Your task to perform on an android device: change notification settings in the gmail app Image 0: 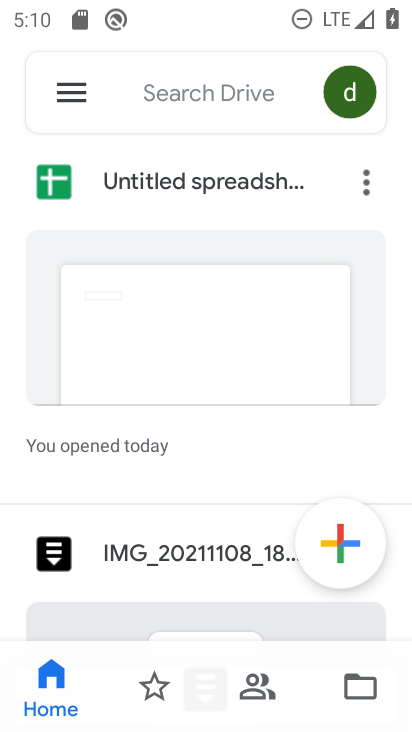
Step 0: press home button
Your task to perform on an android device: change notification settings in the gmail app Image 1: 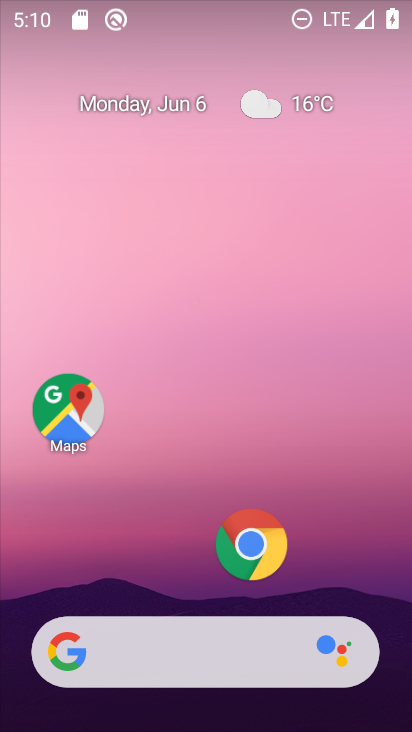
Step 1: drag from (206, 588) to (206, 79)
Your task to perform on an android device: change notification settings in the gmail app Image 2: 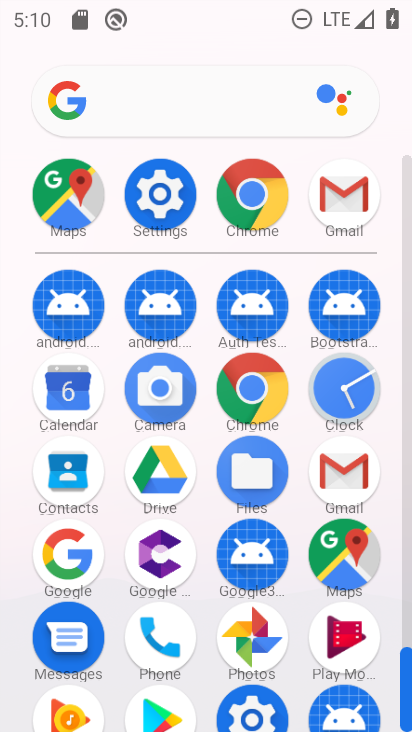
Step 2: click (344, 183)
Your task to perform on an android device: change notification settings in the gmail app Image 3: 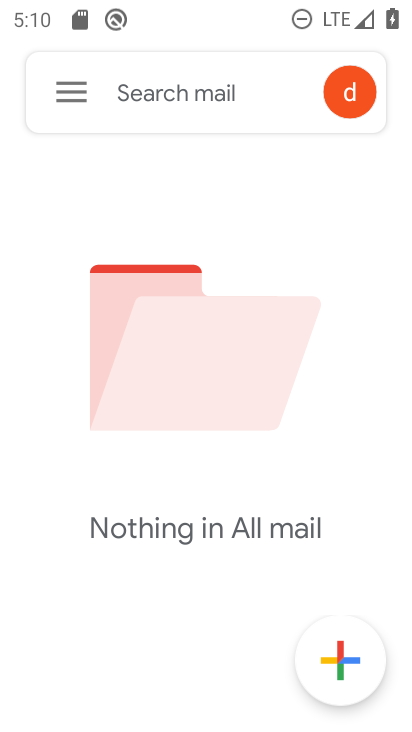
Step 3: click (65, 81)
Your task to perform on an android device: change notification settings in the gmail app Image 4: 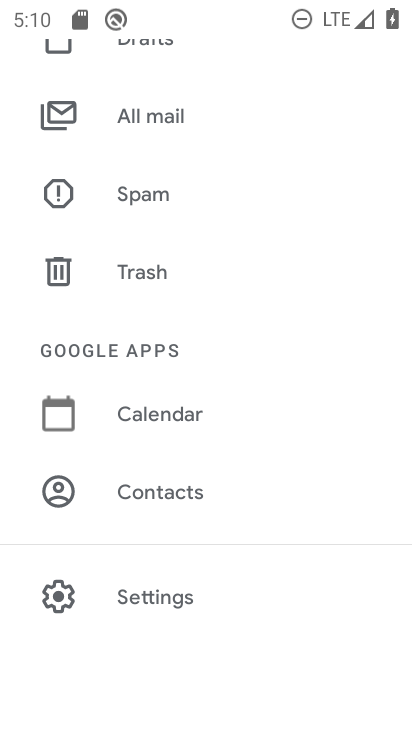
Step 4: click (92, 595)
Your task to perform on an android device: change notification settings in the gmail app Image 5: 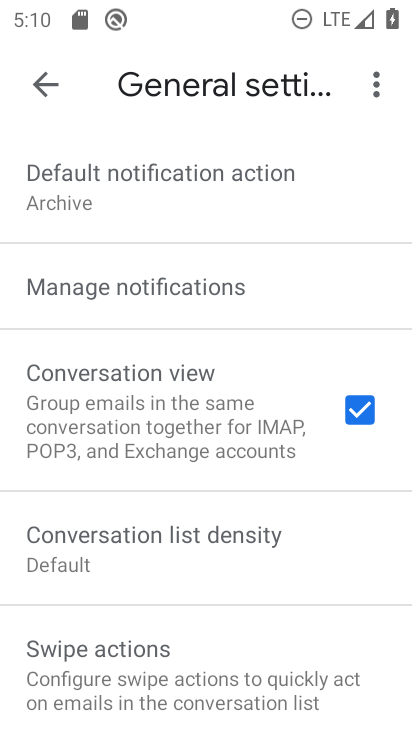
Step 5: click (257, 279)
Your task to perform on an android device: change notification settings in the gmail app Image 6: 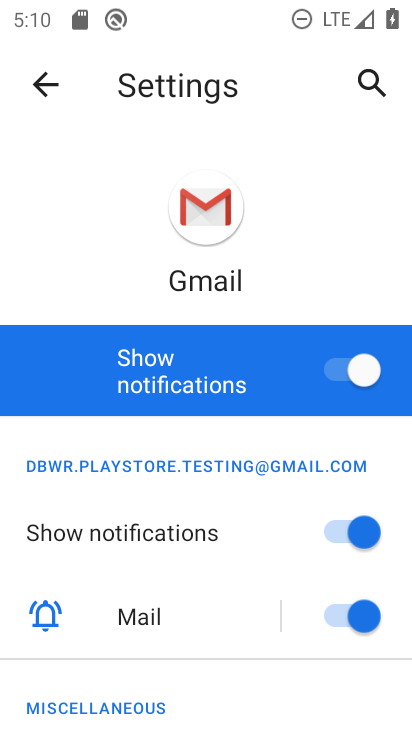
Step 6: click (341, 370)
Your task to perform on an android device: change notification settings in the gmail app Image 7: 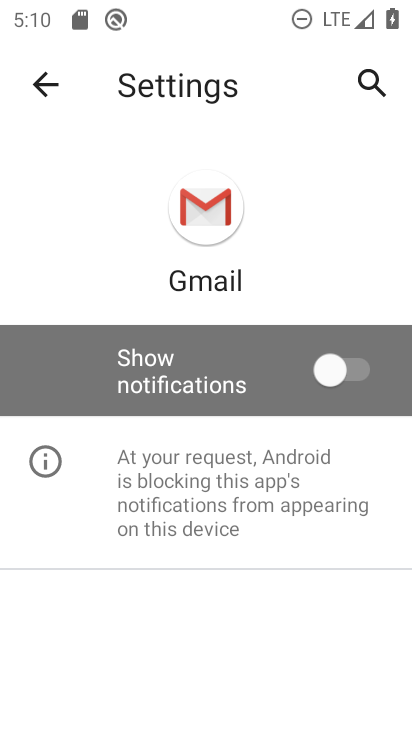
Step 7: task complete